Your task to perform on an android device: toggle sleep mode Image 0: 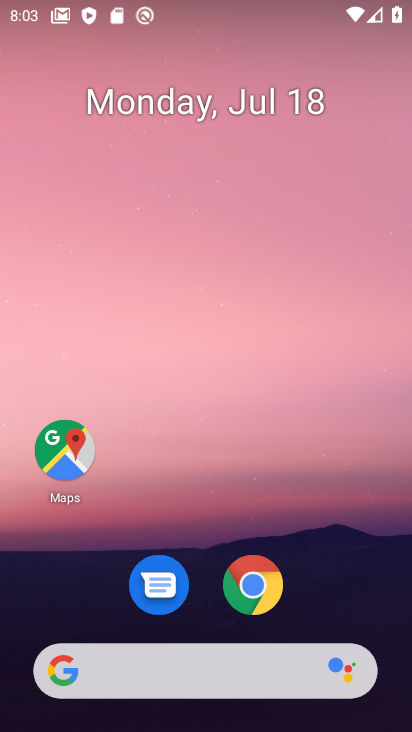
Step 0: press home button
Your task to perform on an android device: toggle sleep mode Image 1: 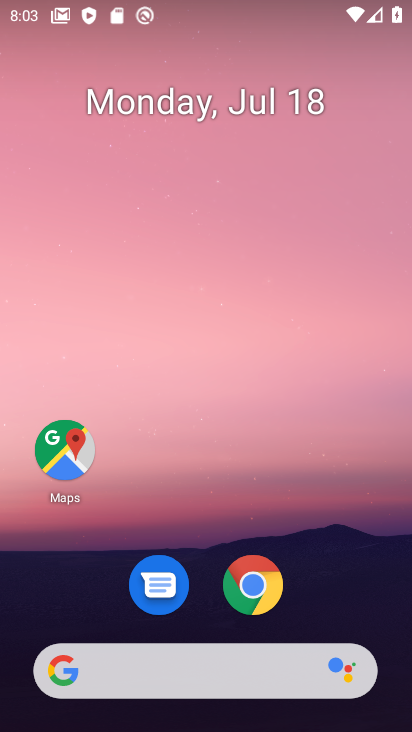
Step 1: drag from (186, 677) to (292, 0)
Your task to perform on an android device: toggle sleep mode Image 2: 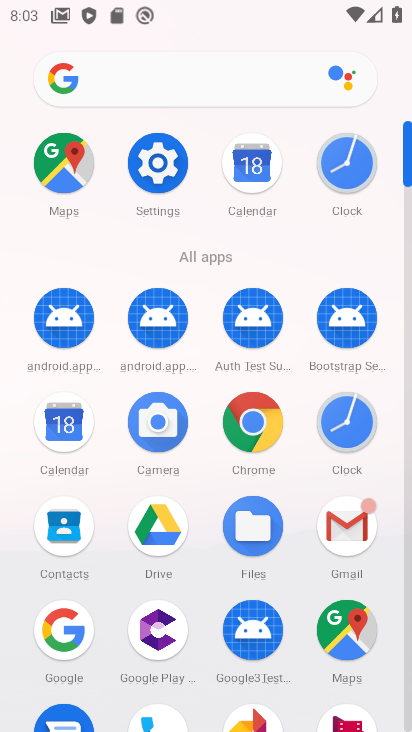
Step 2: click (161, 171)
Your task to perform on an android device: toggle sleep mode Image 3: 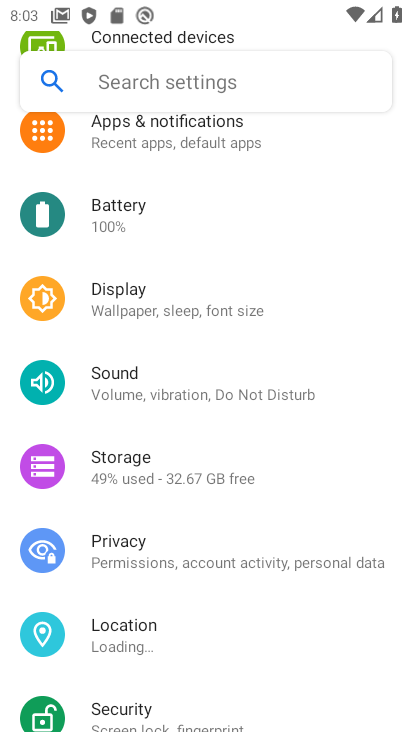
Step 3: click (186, 313)
Your task to perform on an android device: toggle sleep mode Image 4: 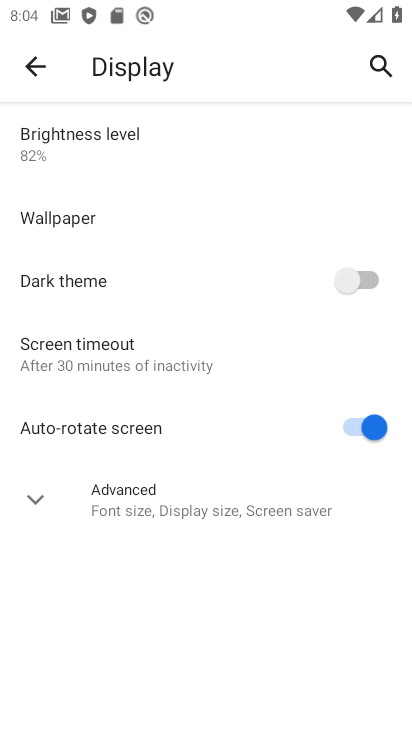
Step 4: task complete